Your task to perform on an android device: Open location settings Image 0: 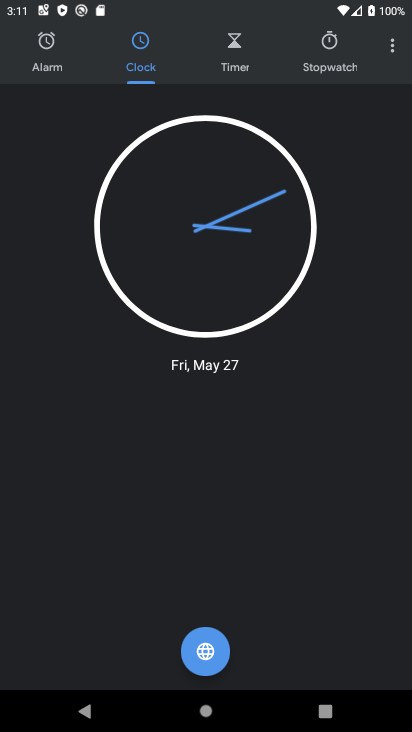
Step 0: press back button
Your task to perform on an android device: Open location settings Image 1: 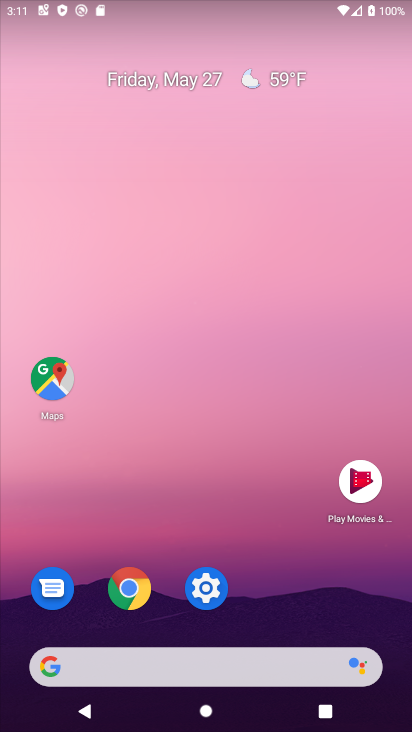
Step 1: drag from (275, 637) to (156, 101)
Your task to perform on an android device: Open location settings Image 2: 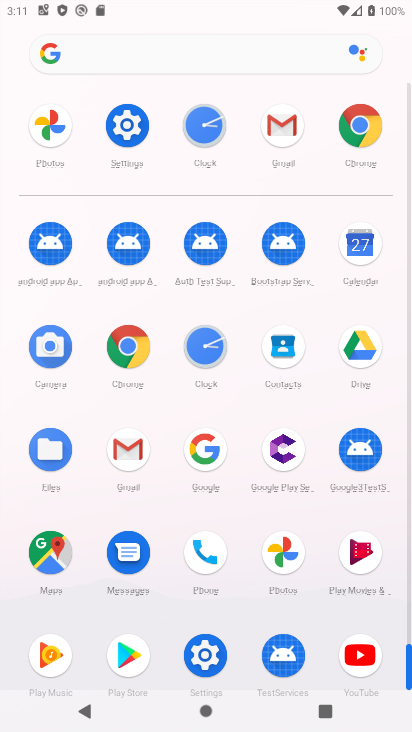
Step 2: click (131, 131)
Your task to perform on an android device: Open location settings Image 3: 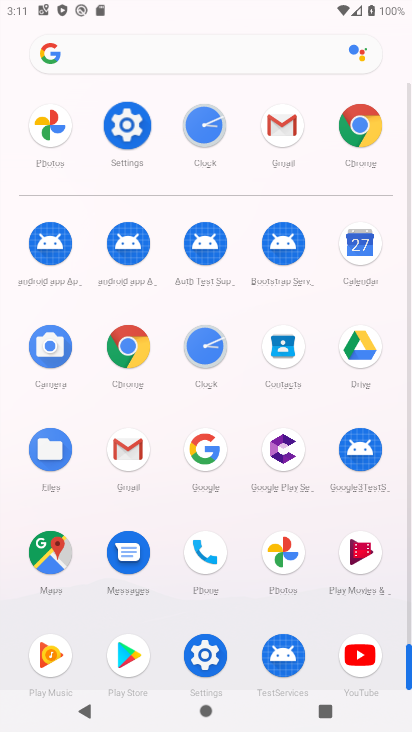
Step 3: click (130, 132)
Your task to perform on an android device: Open location settings Image 4: 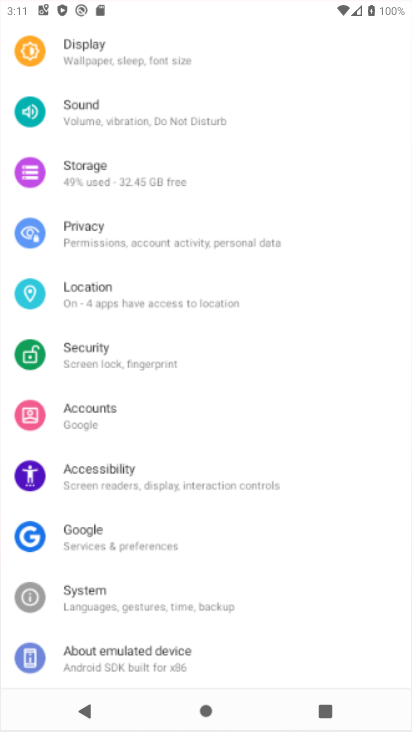
Step 4: click (125, 133)
Your task to perform on an android device: Open location settings Image 5: 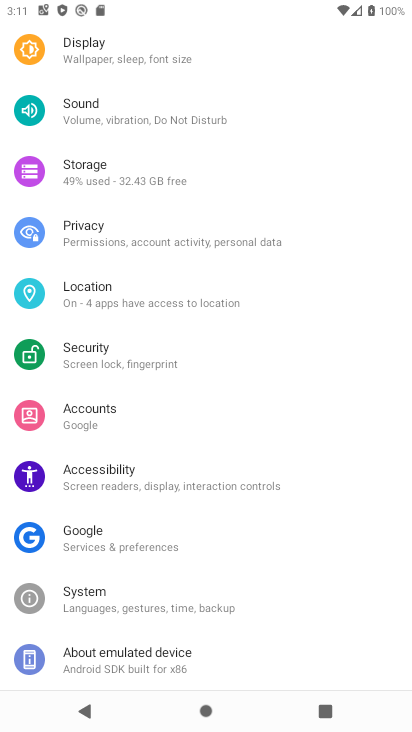
Step 5: click (125, 133)
Your task to perform on an android device: Open location settings Image 6: 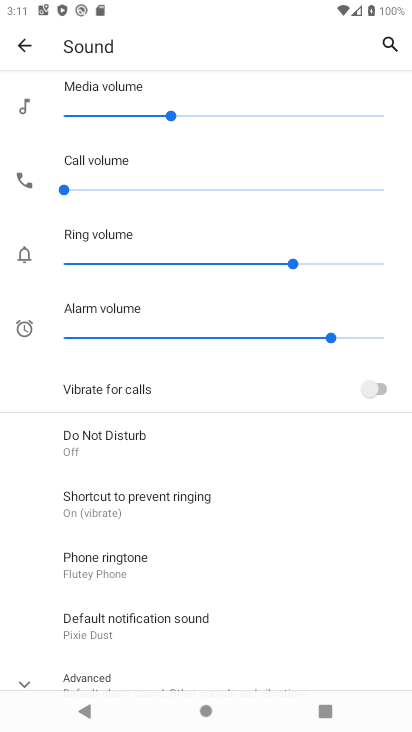
Step 6: click (16, 38)
Your task to perform on an android device: Open location settings Image 7: 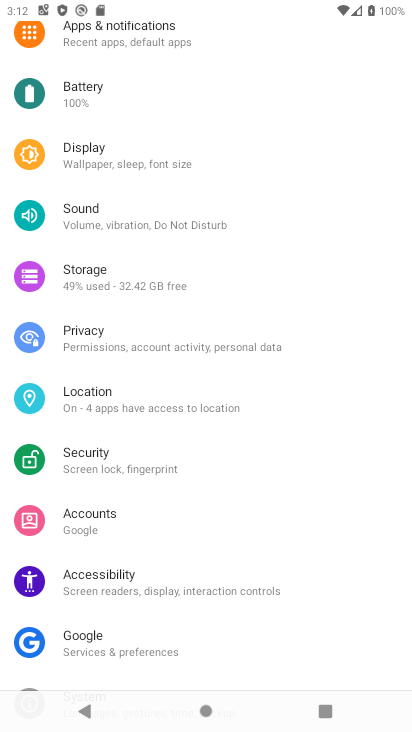
Step 7: click (78, 404)
Your task to perform on an android device: Open location settings Image 8: 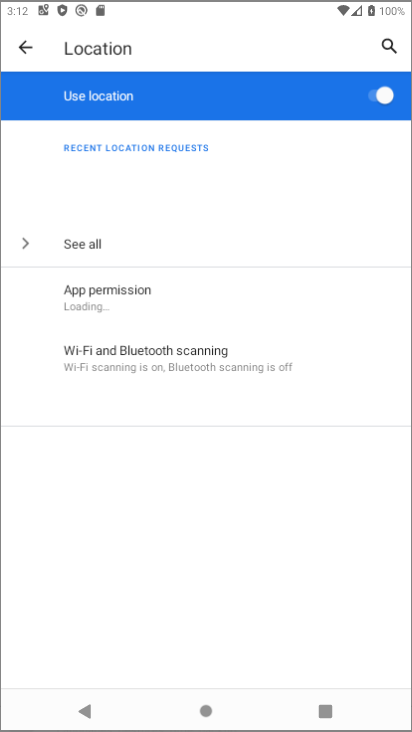
Step 8: click (78, 404)
Your task to perform on an android device: Open location settings Image 9: 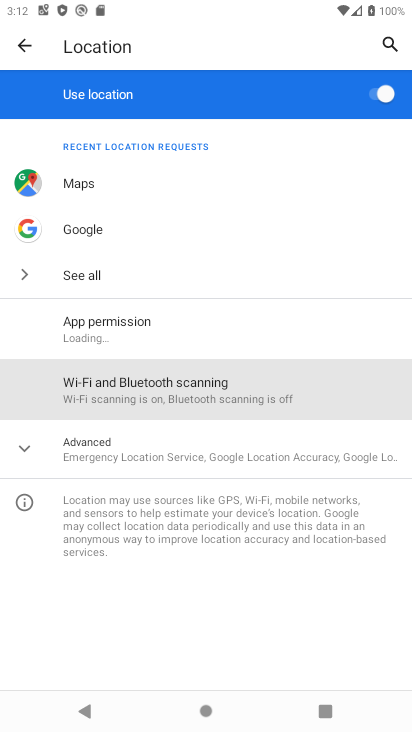
Step 9: click (90, 407)
Your task to perform on an android device: Open location settings Image 10: 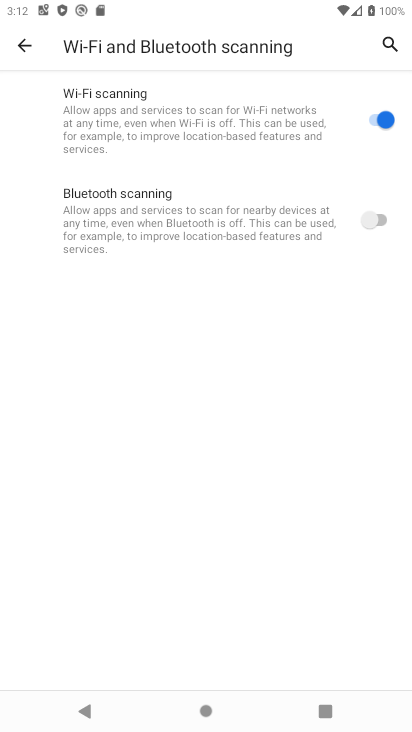
Step 10: click (368, 216)
Your task to perform on an android device: Open location settings Image 11: 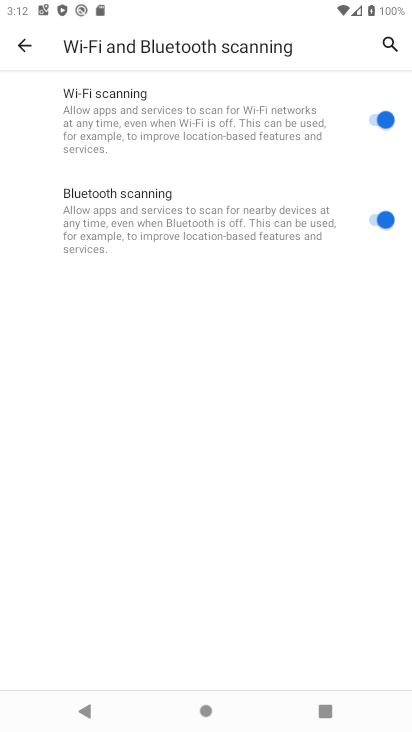
Step 11: click (390, 212)
Your task to perform on an android device: Open location settings Image 12: 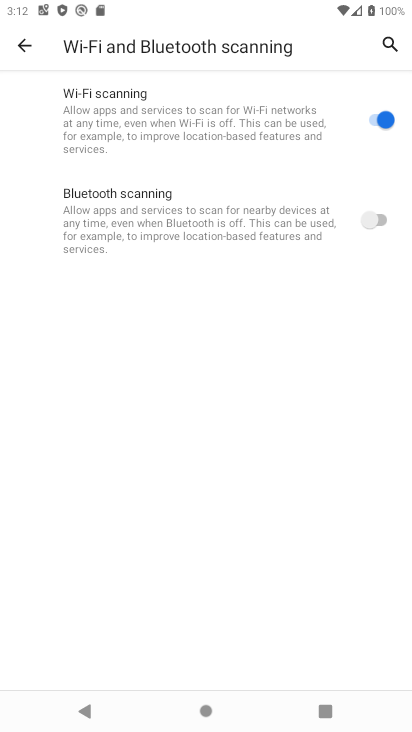
Step 12: click (21, 45)
Your task to perform on an android device: Open location settings Image 13: 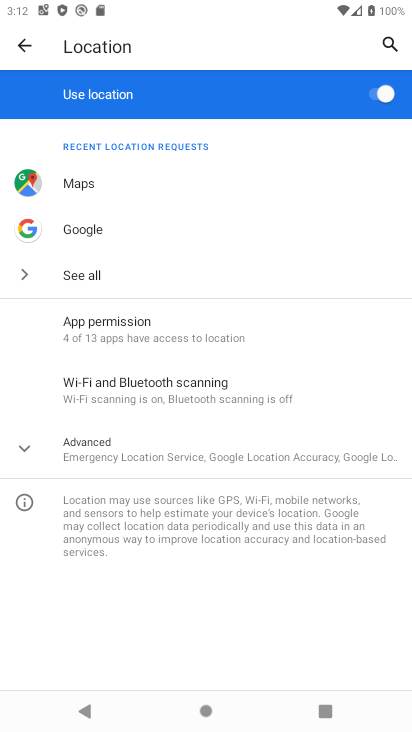
Step 13: click (22, 42)
Your task to perform on an android device: Open location settings Image 14: 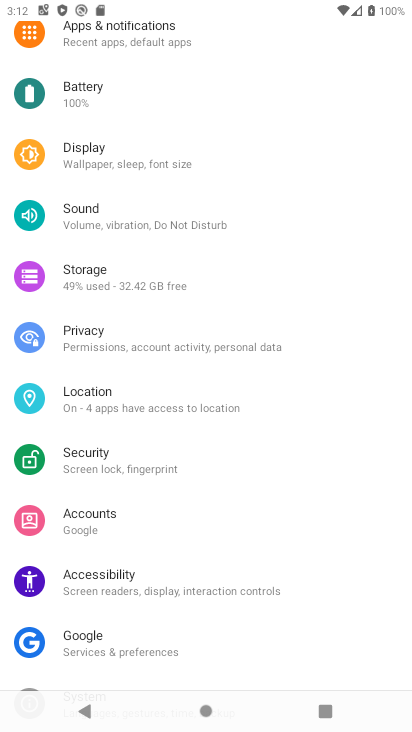
Step 14: click (91, 395)
Your task to perform on an android device: Open location settings Image 15: 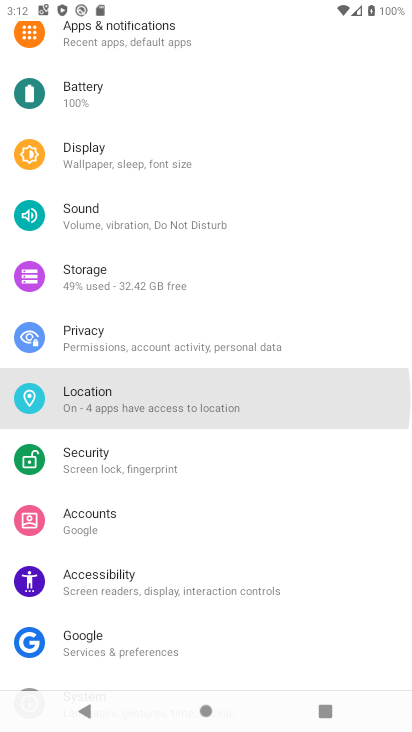
Step 15: click (91, 395)
Your task to perform on an android device: Open location settings Image 16: 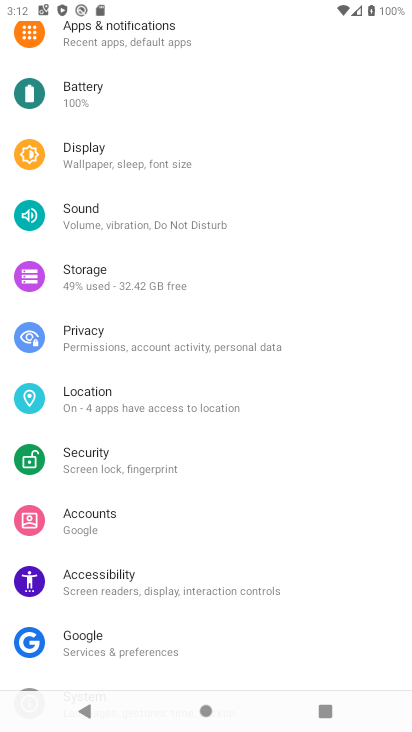
Step 16: click (91, 395)
Your task to perform on an android device: Open location settings Image 17: 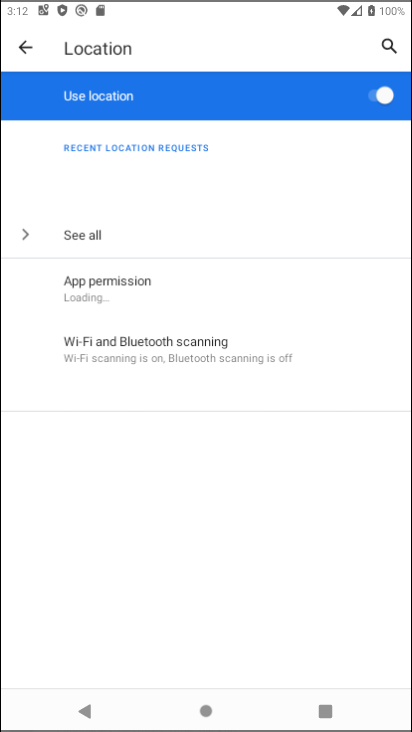
Step 17: click (91, 395)
Your task to perform on an android device: Open location settings Image 18: 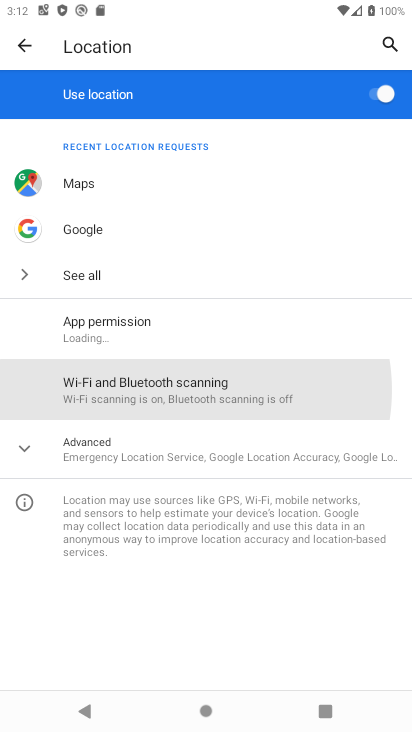
Step 18: click (92, 395)
Your task to perform on an android device: Open location settings Image 19: 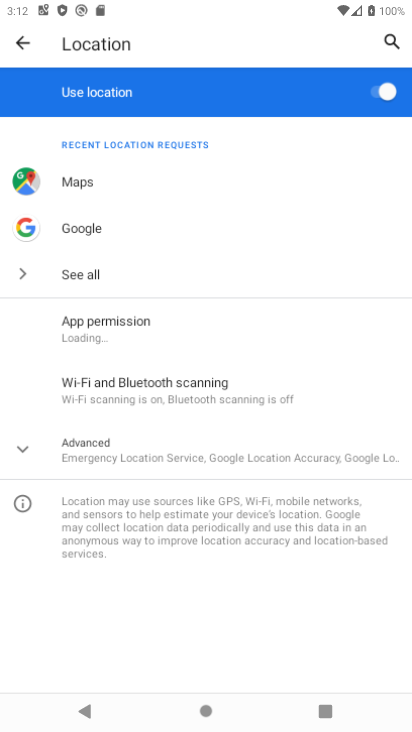
Step 19: click (92, 395)
Your task to perform on an android device: Open location settings Image 20: 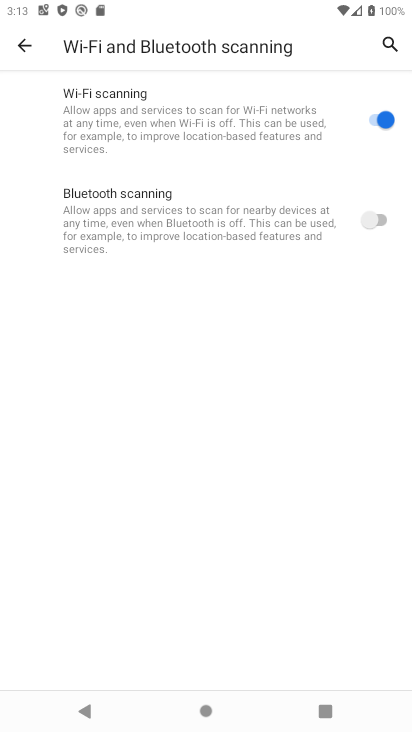
Step 20: click (16, 48)
Your task to perform on an android device: Open location settings Image 21: 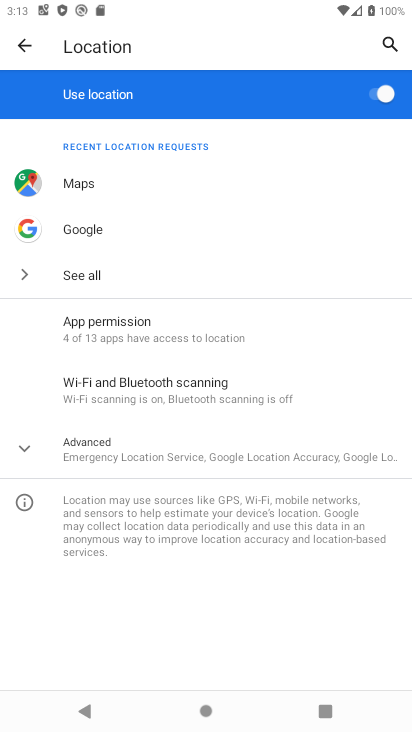
Step 21: task complete